Your task to perform on an android device: open app "The Home Depot" (install if not already installed) and enter user name: "taproot@icloud.com" and password: "executions" Image 0: 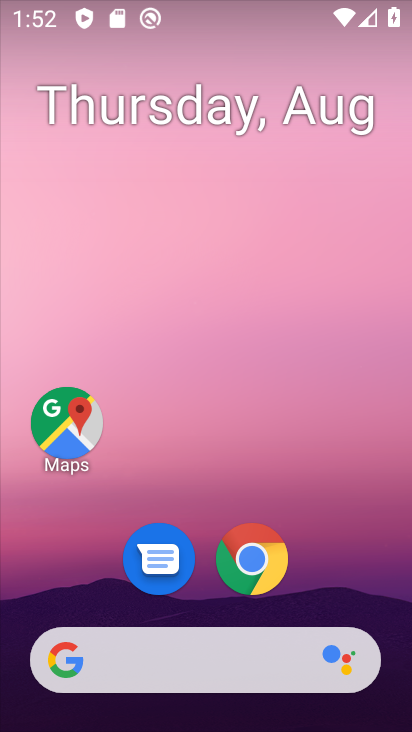
Step 0: drag from (116, 438) to (199, 91)
Your task to perform on an android device: open app "The Home Depot" (install if not already installed) and enter user name: "taproot@icloud.com" and password: "executions" Image 1: 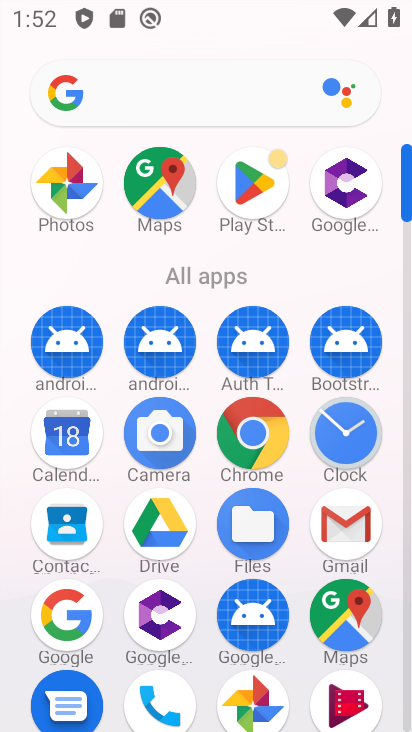
Step 1: click (252, 187)
Your task to perform on an android device: open app "The Home Depot" (install if not already installed) and enter user name: "taproot@icloud.com" and password: "executions" Image 2: 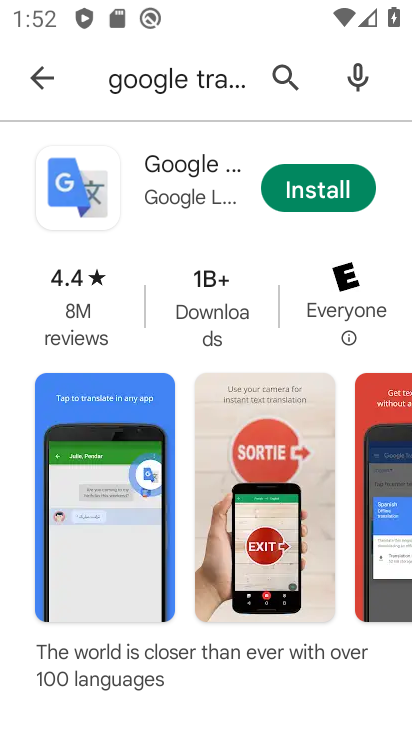
Step 2: click (293, 71)
Your task to perform on an android device: open app "The Home Depot" (install if not already installed) and enter user name: "taproot@icloud.com" and password: "executions" Image 3: 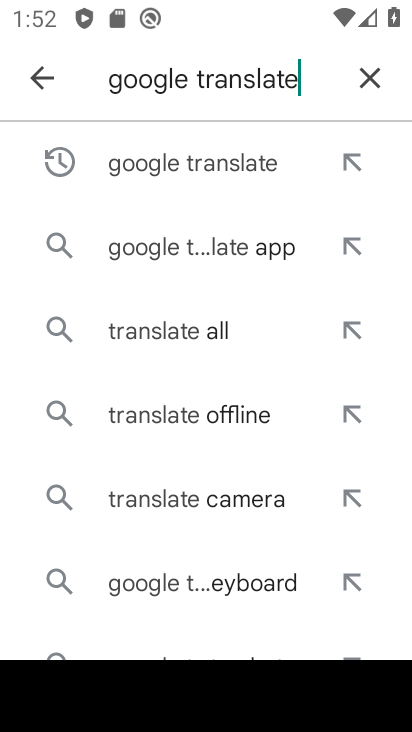
Step 3: click (366, 74)
Your task to perform on an android device: open app "The Home Depot" (install if not already installed) and enter user name: "taproot@icloud.com" and password: "executions" Image 4: 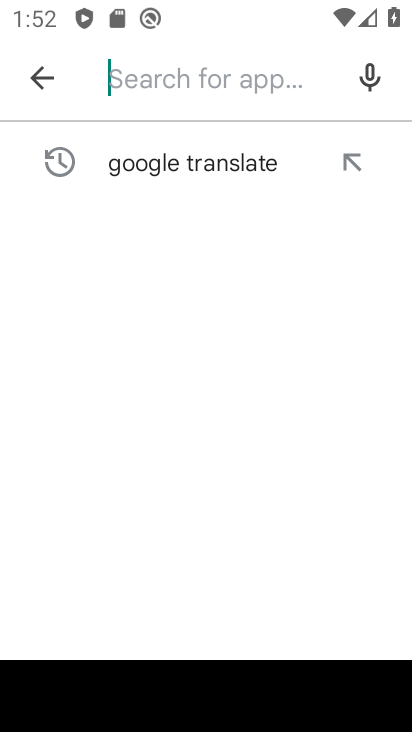
Step 4: click (176, 78)
Your task to perform on an android device: open app "The Home Depot" (install if not already installed) and enter user name: "taproot@icloud.com" and password: "executions" Image 5: 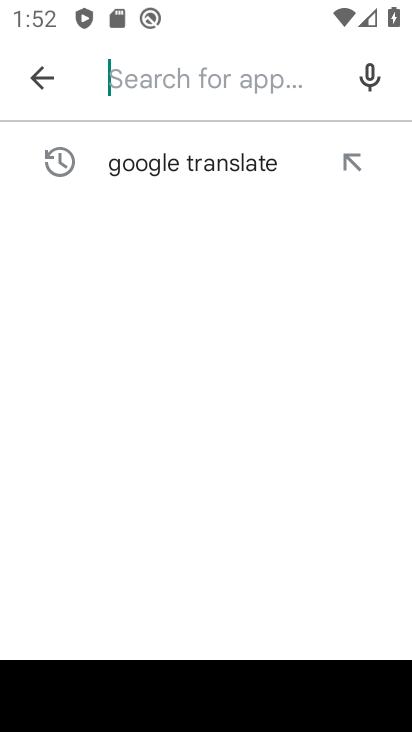
Step 5: type "the home depot"
Your task to perform on an android device: open app "The Home Depot" (install if not already installed) and enter user name: "taproot@icloud.com" and password: "executions" Image 6: 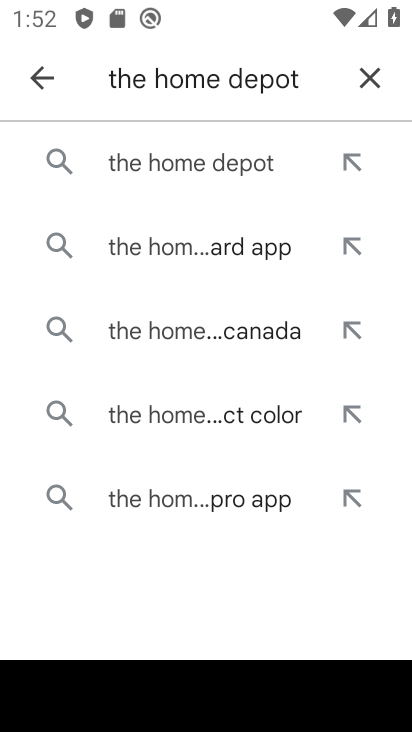
Step 6: click (180, 173)
Your task to perform on an android device: open app "The Home Depot" (install if not already installed) and enter user name: "taproot@icloud.com" and password: "executions" Image 7: 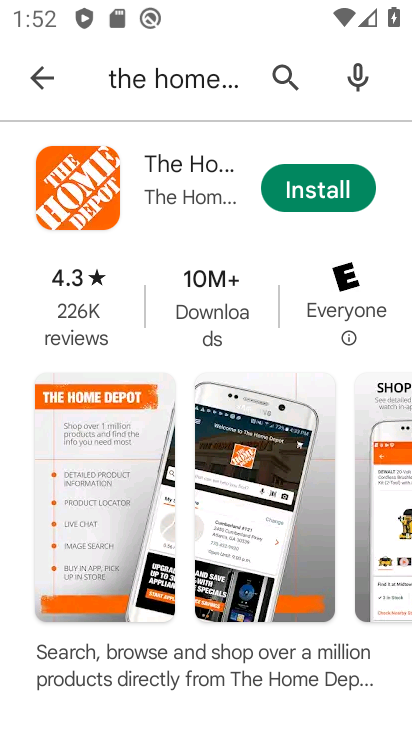
Step 7: click (335, 179)
Your task to perform on an android device: open app "The Home Depot" (install if not already installed) and enter user name: "taproot@icloud.com" and password: "executions" Image 8: 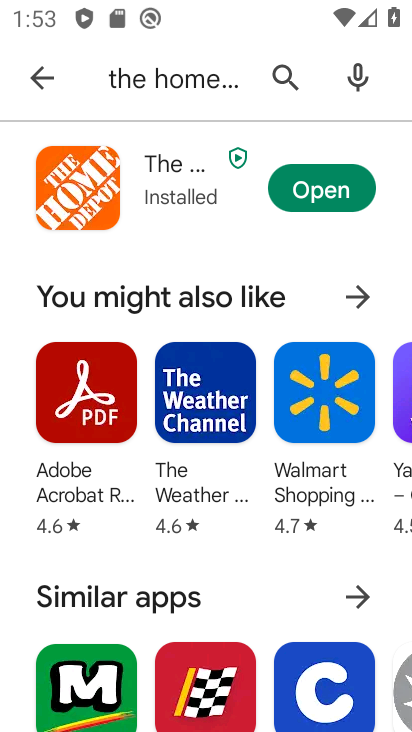
Step 8: click (305, 190)
Your task to perform on an android device: open app "The Home Depot" (install if not already installed) and enter user name: "taproot@icloud.com" and password: "executions" Image 9: 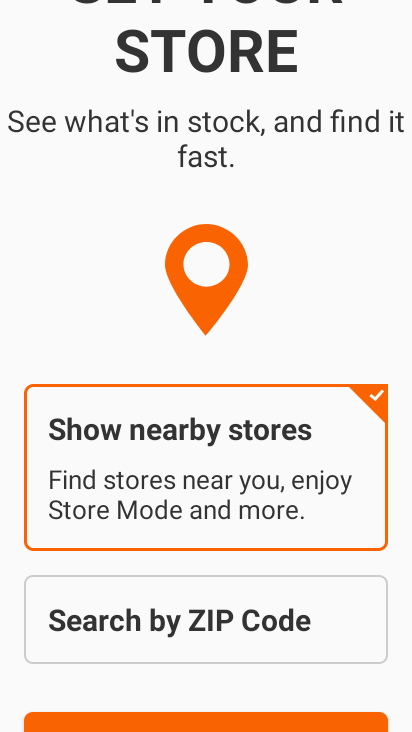
Step 9: drag from (206, 678) to (316, 172)
Your task to perform on an android device: open app "The Home Depot" (install if not already installed) and enter user name: "taproot@icloud.com" and password: "executions" Image 10: 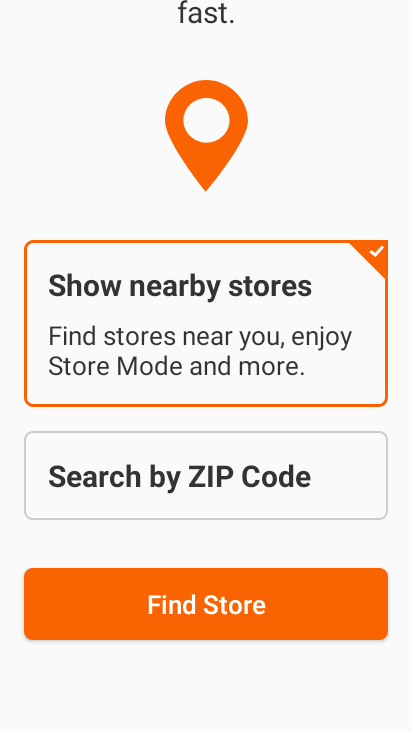
Step 10: drag from (252, 176) to (238, 644)
Your task to perform on an android device: open app "The Home Depot" (install if not already installed) and enter user name: "taproot@icloud.com" and password: "executions" Image 11: 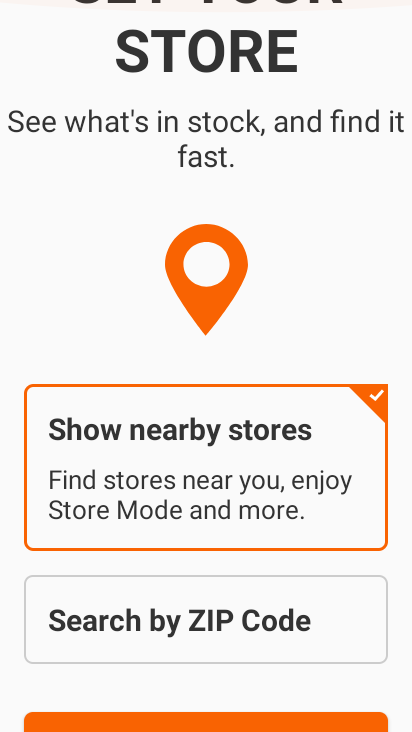
Step 11: click (173, 474)
Your task to perform on an android device: open app "The Home Depot" (install if not already installed) and enter user name: "taproot@icloud.com" and password: "executions" Image 12: 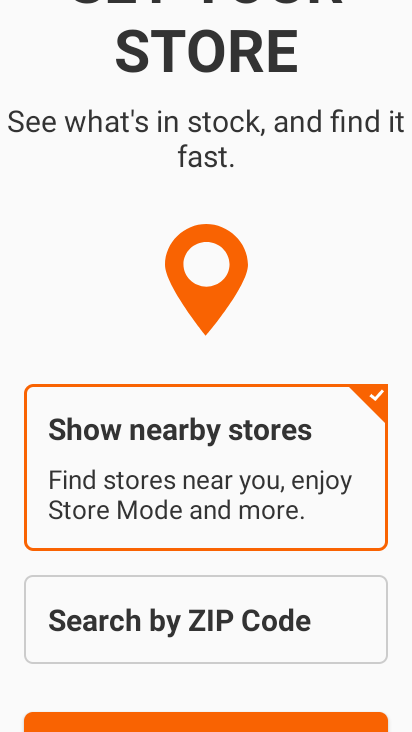
Step 12: drag from (179, 584) to (248, 135)
Your task to perform on an android device: open app "The Home Depot" (install if not already installed) and enter user name: "taproot@icloud.com" and password: "executions" Image 13: 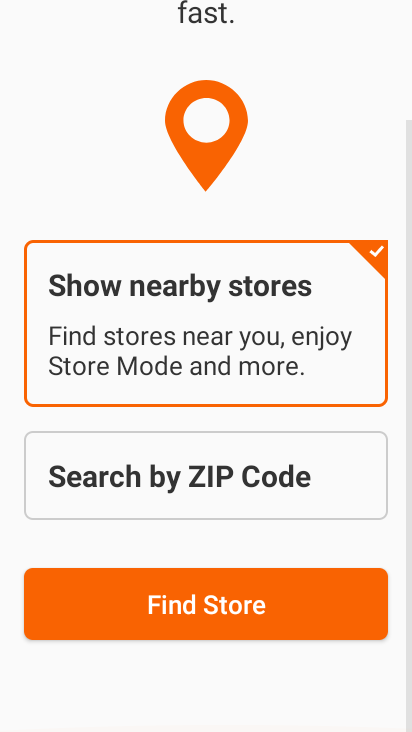
Step 13: click (224, 621)
Your task to perform on an android device: open app "The Home Depot" (install if not already installed) and enter user name: "taproot@icloud.com" and password: "executions" Image 14: 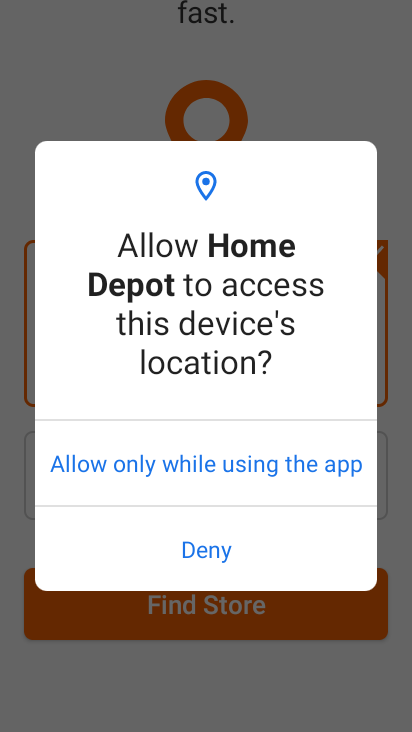
Step 14: click (205, 555)
Your task to perform on an android device: open app "The Home Depot" (install if not already installed) and enter user name: "taproot@icloud.com" and password: "executions" Image 15: 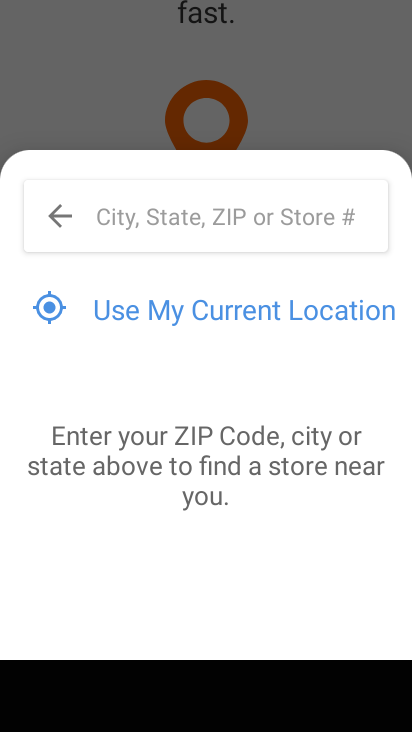
Step 15: click (189, 393)
Your task to perform on an android device: open app "The Home Depot" (install if not already installed) and enter user name: "taproot@icloud.com" and password: "executions" Image 16: 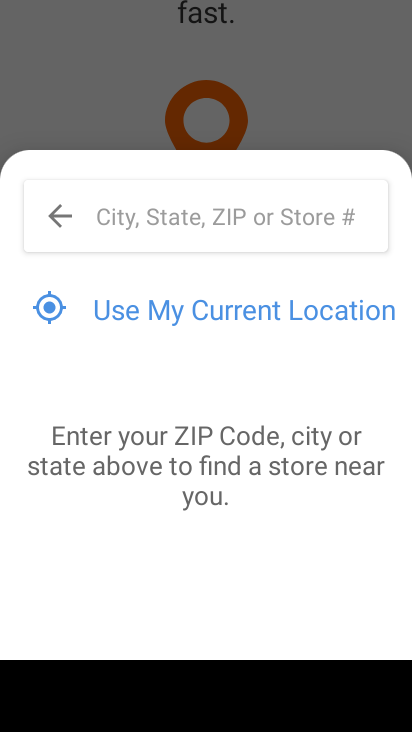
Step 16: click (204, 294)
Your task to perform on an android device: open app "The Home Depot" (install if not already installed) and enter user name: "taproot@icloud.com" and password: "executions" Image 17: 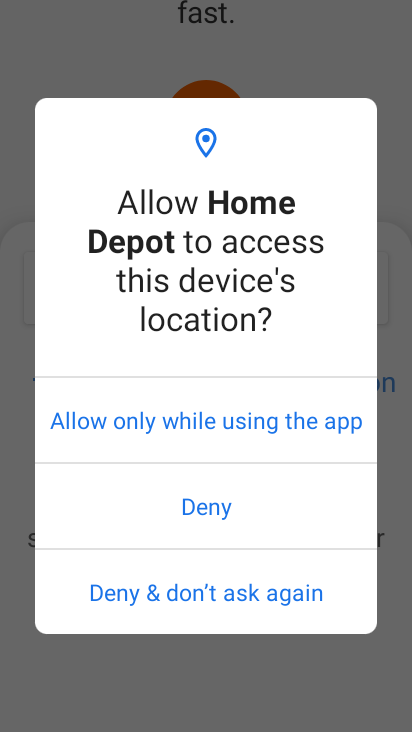
Step 17: click (183, 431)
Your task to perform on an android device: open app "The Home Depot" (install if not already installed) and enter user name: "taproot@icloud.com" and password: "executions" Image 18: 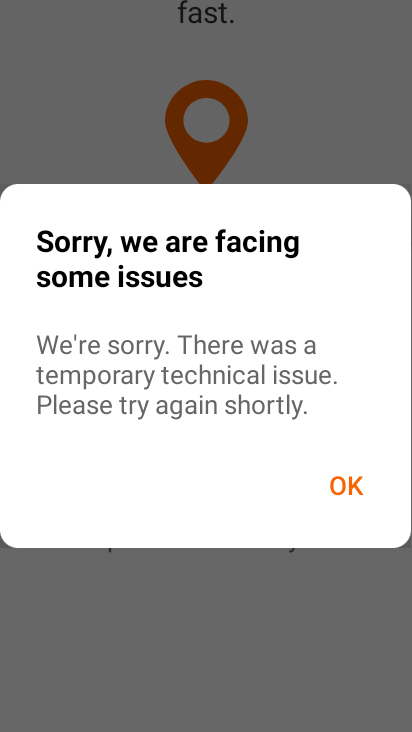
Step 18: click (347, 470)
Your task to perform on an android device: open app "The Home Depot" (install if not already installed) and enter user name: "taproot@icloud.com" and password: "executions" Image 19: 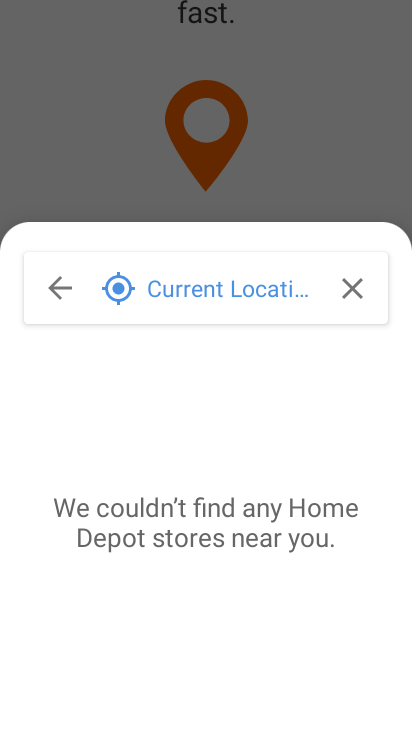
Step 19: task complete